Your task to perform on an android device: turn on wifi Image 0: 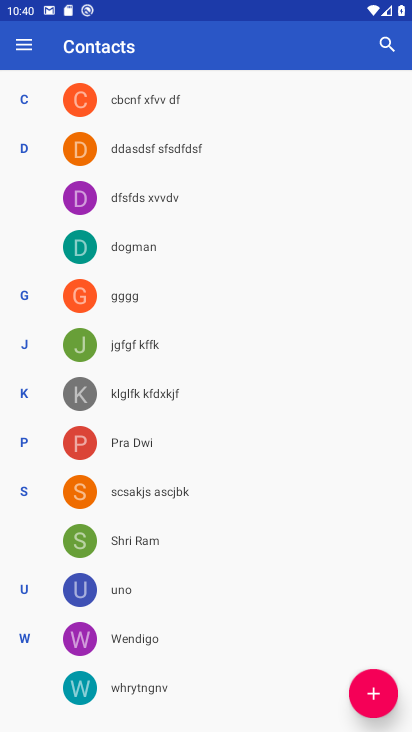
Step 0: press home button
Your task to perform on an android device: turn on wifi Image 1: 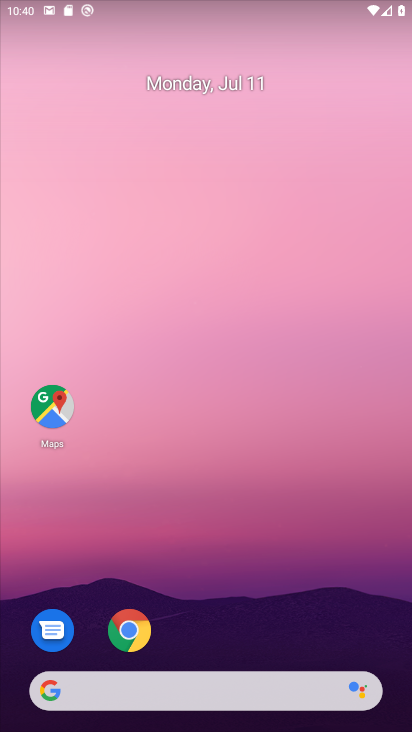
Step 1: drag from (202, 644) to (326, 17)
Your task to perform on an android device: turn on wifi Image 2: 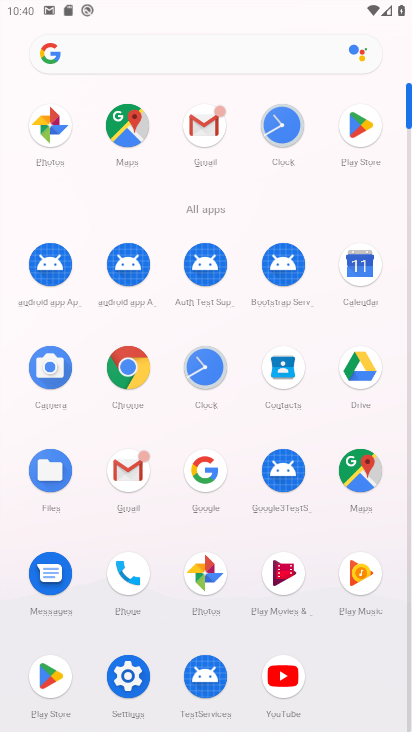
Step 2: drag from (245, 321) to (285, 1)
Your task to perform on an android device: turn on wifi Image 3: 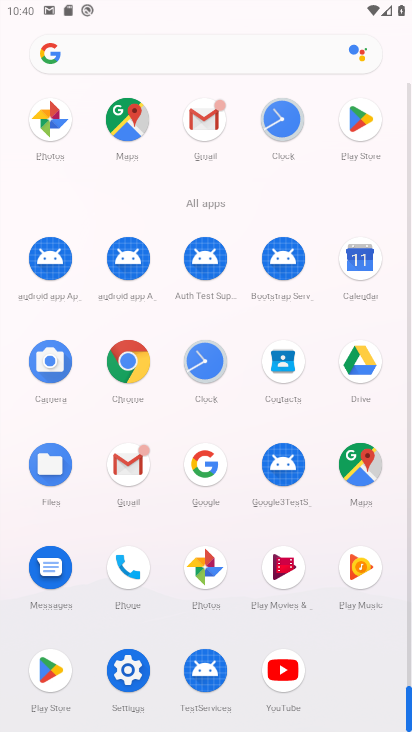
Step 3: click (142, 666)
Your task to perform on an android device: turn on wifi Image 4: 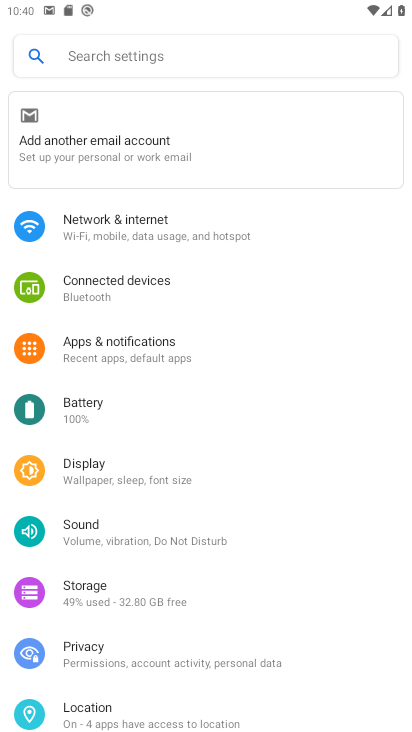
Step 4: click (154, 226)
Your task to perform on an android device: turn on wifi Image 5: 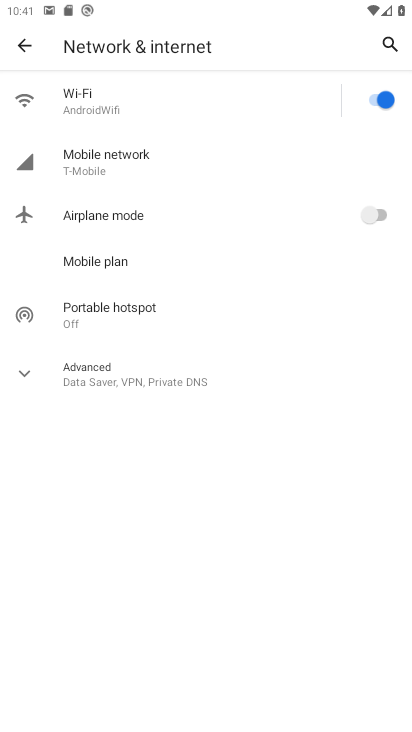
Step 5: task complete